Your task to perform on an android device: read, delete, or share a saved page in the chrome app Image 0: 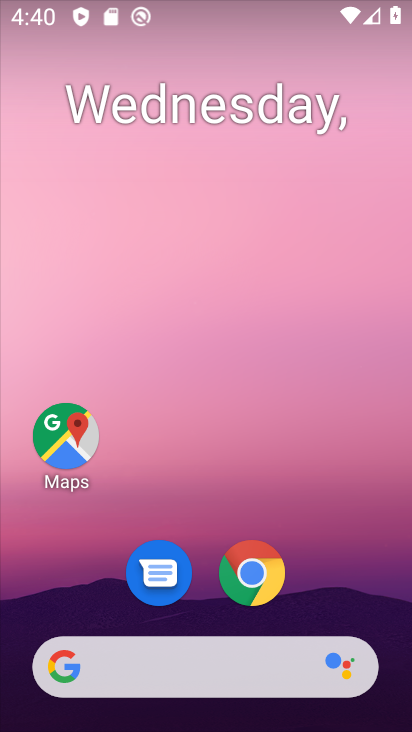
Step 0: click (254, 586)
Your task to perform on an android device: read, delete, or share a saved page in the chrome app Image 1: 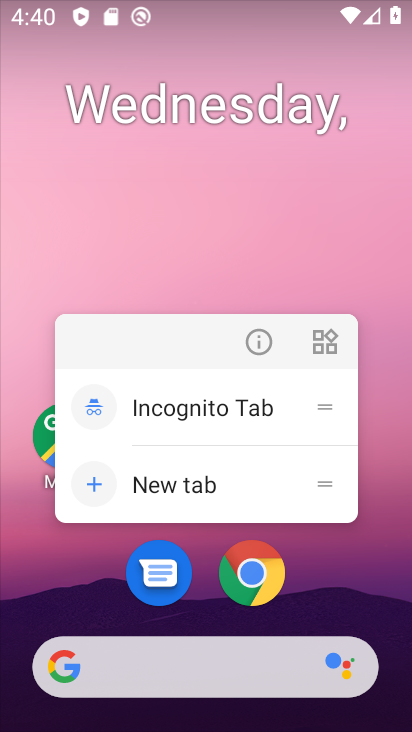
Step 1: click (335, 558)
Your task to perform on an android device: read, delete, or share a saved page in the chrome app Image 2: 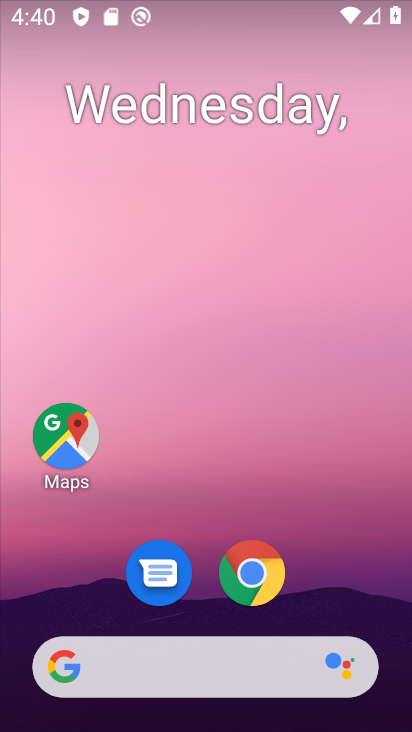
Step 2: drag from (347, 438) to (304, 133)
Your task to perform on an android device: read, delete, or share a saved page in the chrome app Image 3: 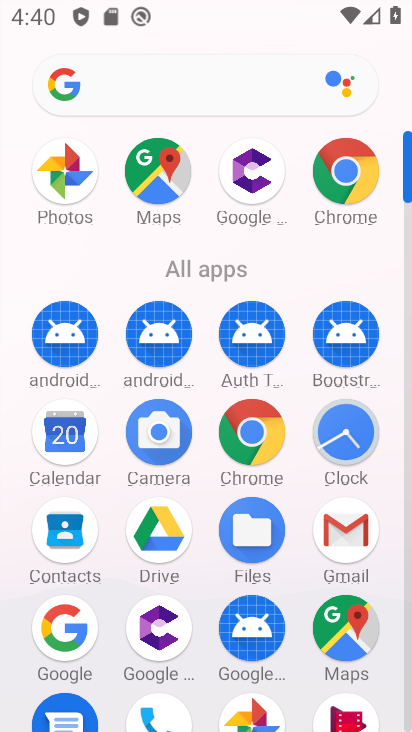
Step 3: click (252, 436)
Your task to perform on an android device: read, delete, or share a saved page in the chrome app Image 4: 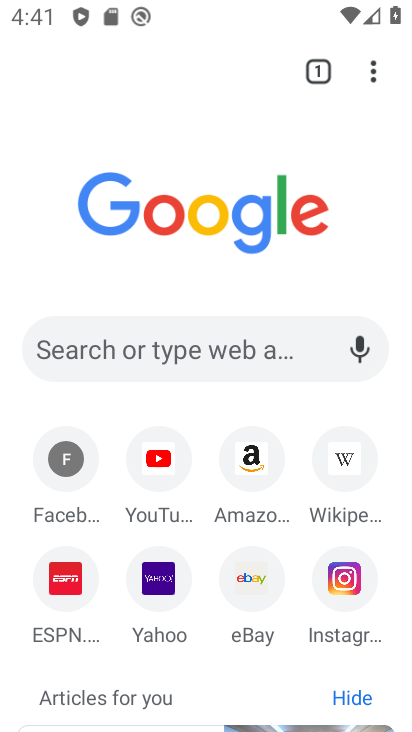
Step 4: click (245, 462)
Your task to perform on an android device: read, delete, or share a saved page in the chrome app Image 5: 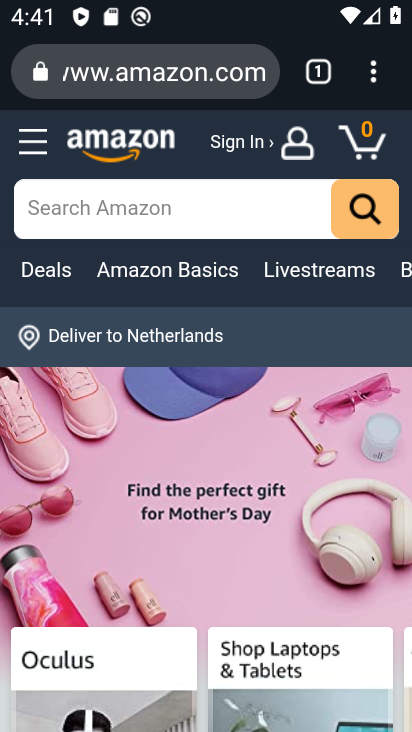
Step 5: drag from (292, 631) to (323, 328)
Your task to perform on an android device: read, delete, or share a saved page in the chrome app Image 6: 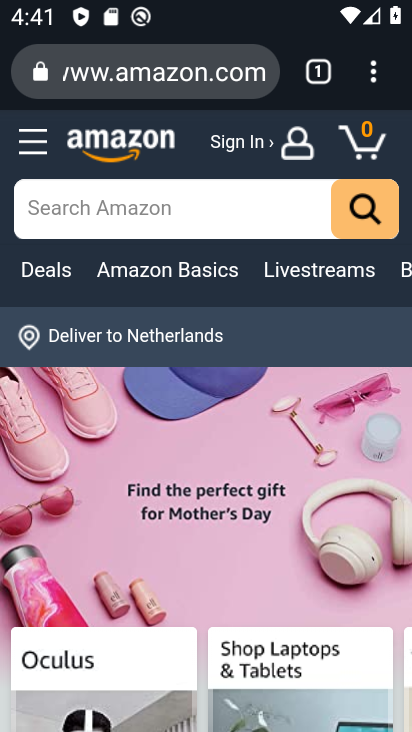
Step 6: drag from (277, 567) to (320, 172)
Your task to perform on an android device: read, delete, or share a saved page in the chrome app Image 7: 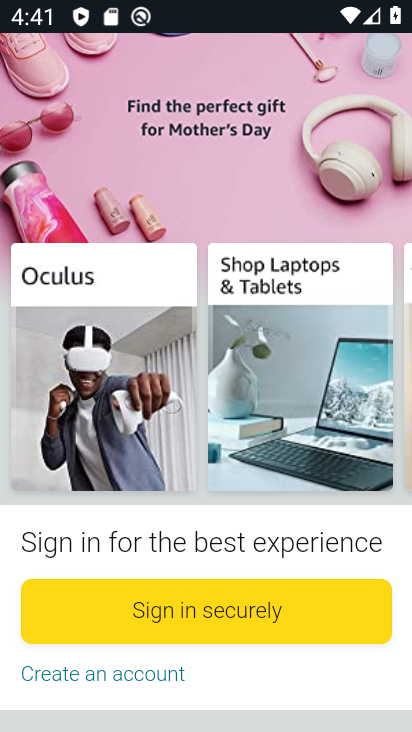
Step 7: drag from (261, 286) to (273, 612)
Your task to perform on an android device: read, delete, or share a saved page in the chrome app Image 8: 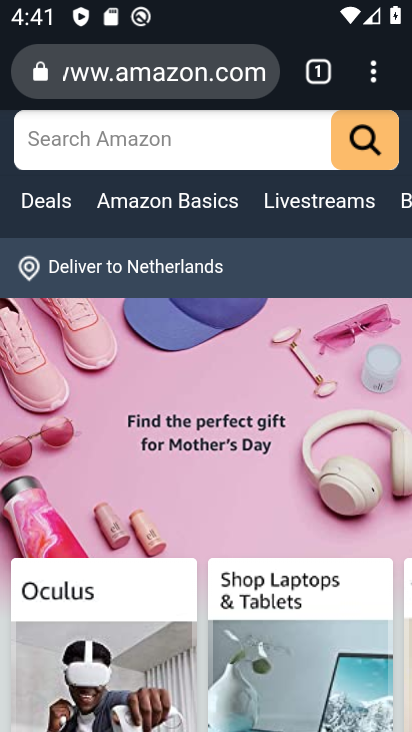
Step 8: drag from (367, 77) to (152, 74)
Your task to perform on an android device: read, delete, or share a saved page in the chrome app Image 9: 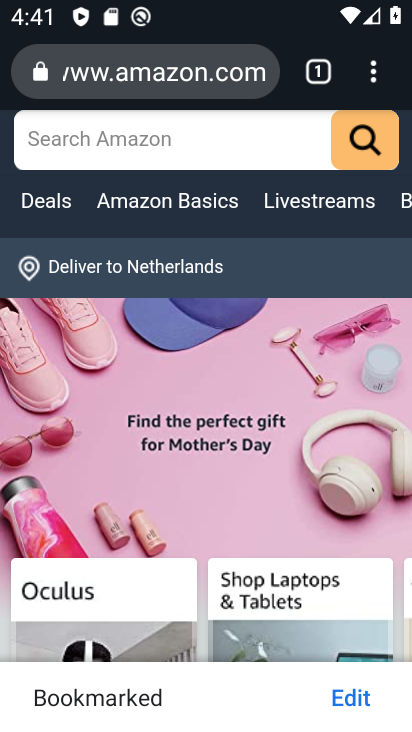
Step 9: drag from (377, 79) to (147, 73)
Your task to perform on an android device: read, delete, or share a saved page in the chrome app Image 10: 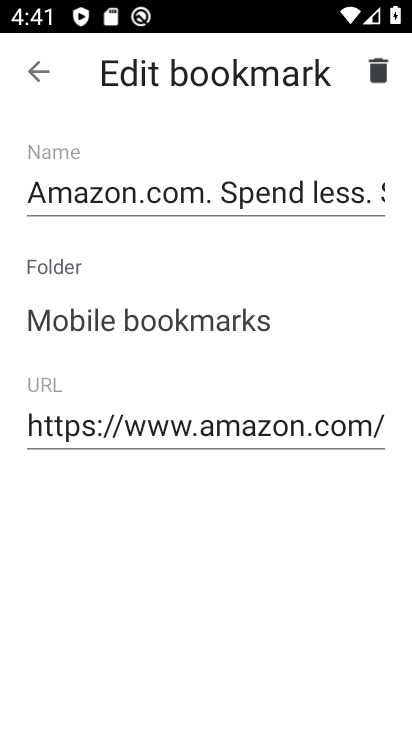
Step 10: click (374, 71)
Your task to perform on an android device: read, delete, or share a saved page in the chrome app Image 11: 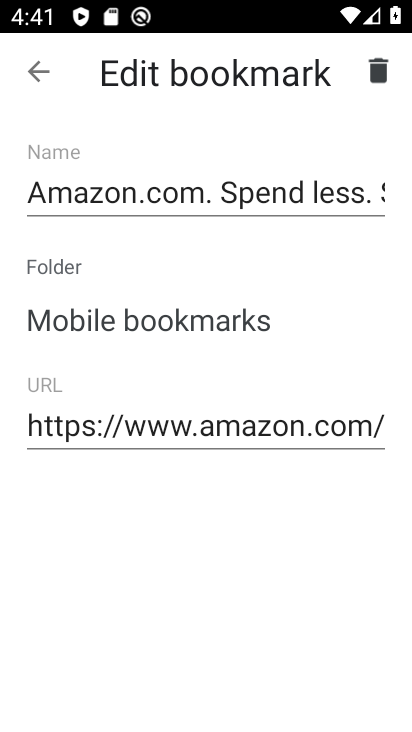
Step 11: click (385, 69)
Your task to perform on an android device: read, delete, or share a saved page in the chrome app Image 12: 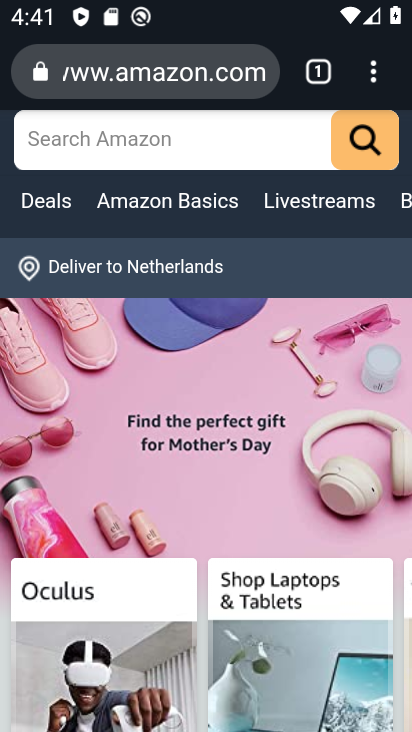
Step 12: task complete